Your task to perform on an android device: toggle improve location accuracy Image 0: 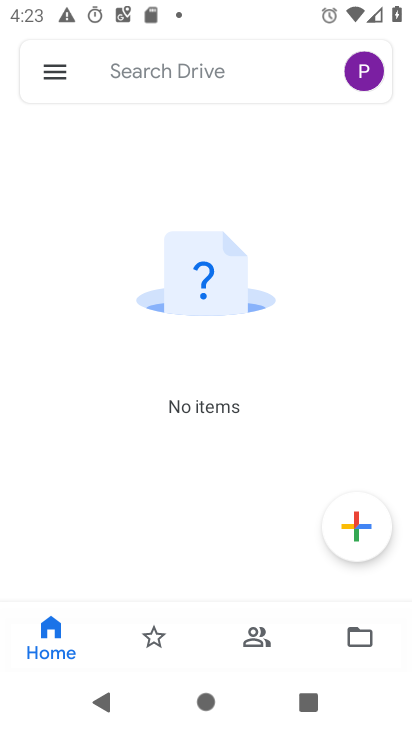
Step 0: press home button
Your task to perform on an android device: toggle improve location accuracy Image 1: 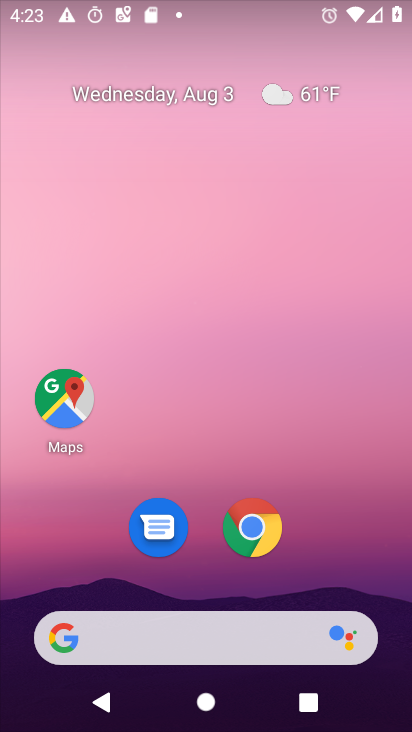
Step 1: drag from (338, 535) to (369, 31)
Your task to perform on an android device: toggle improve location accuracy Image 2: 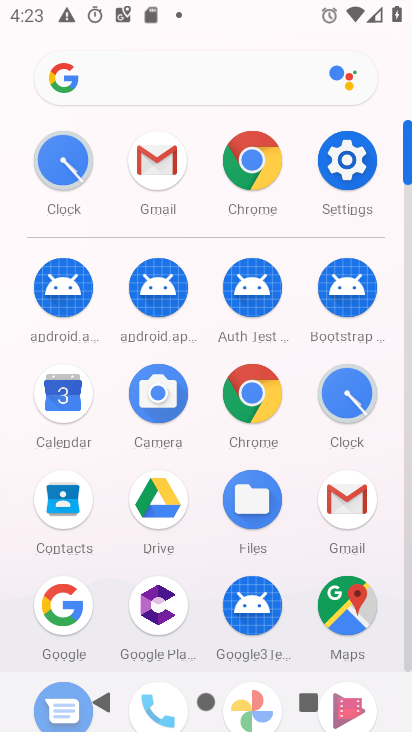
Step 2: click (354, 146)
Your task to perform on an android device: toggle improve location accuracy Image 3: 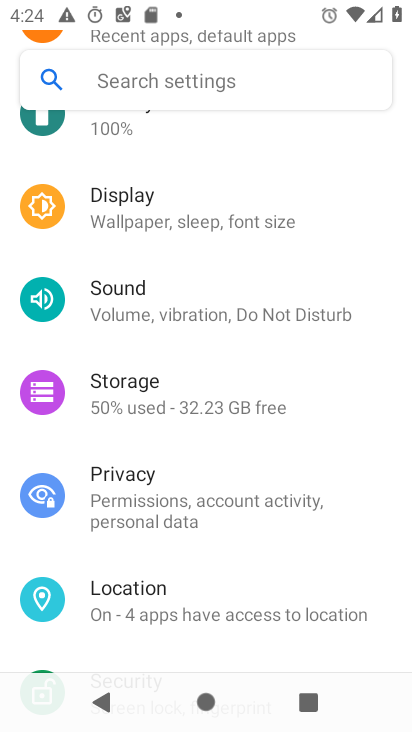
Step 3: drag from (328, 180) to (350, 112)
Your task to perform on an android device: toggle improve location accuracy Image 4: 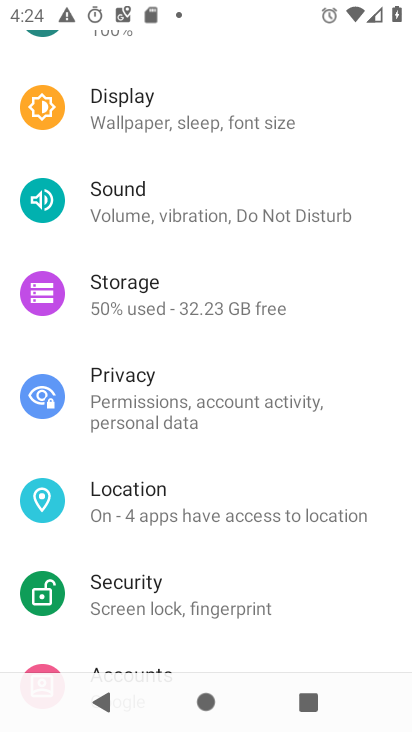
Step 4: drag from (262, 585) to (297, 95)
Your task to perform on an android device: toggle improve location accuracy Image 5: 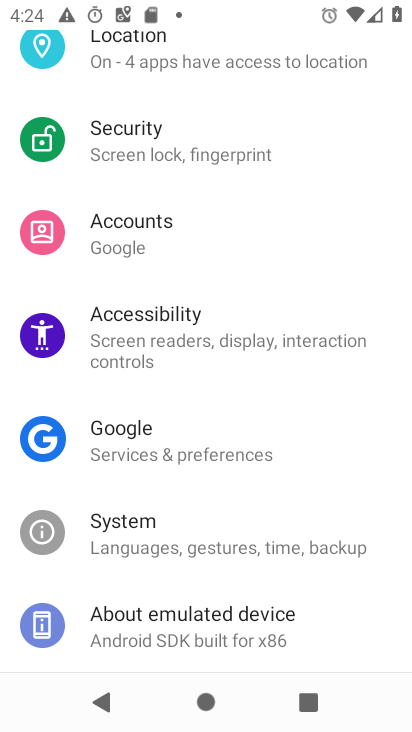
Step 5: click (205, 68)
Your task to perform on an android device: toggle improve location accuracy Image 6: 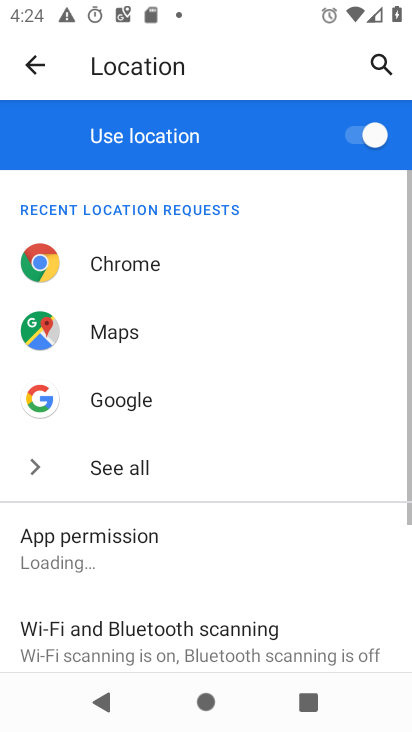
Step 6: drag from (238, 596) to (305, 114)
Your task to perform on an android device: toggle improve location accuracy Image 7: 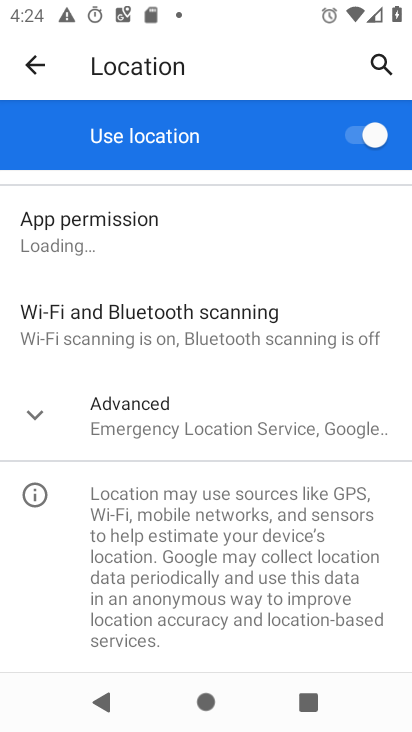
Step 7: click (191, 440)
Your task to perform on an android device: toggle improve location accuracy Image 8: 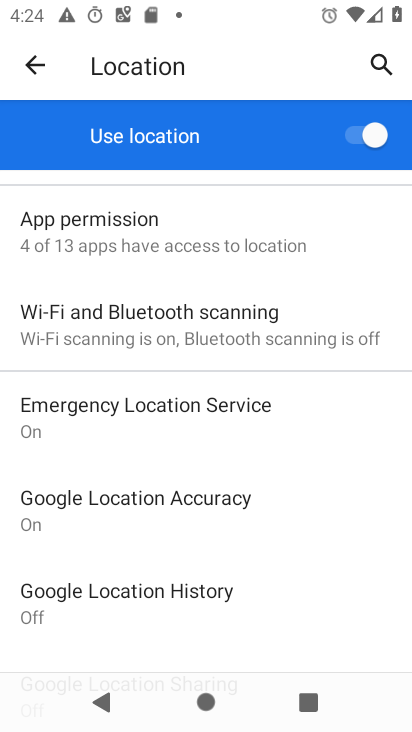
Step 8: click (181, 503)
Your task to perform on an android device: toggle improve location accuracy Image 9: 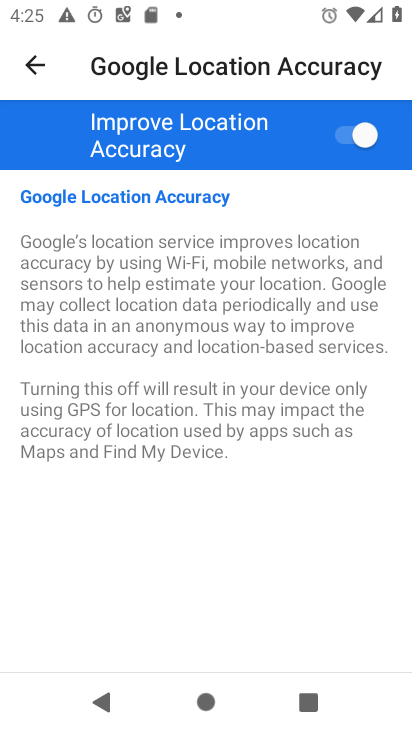
Step 9: click (365, 127)
Your task to perform on an android device: toggle improve location accuracy Image 10: 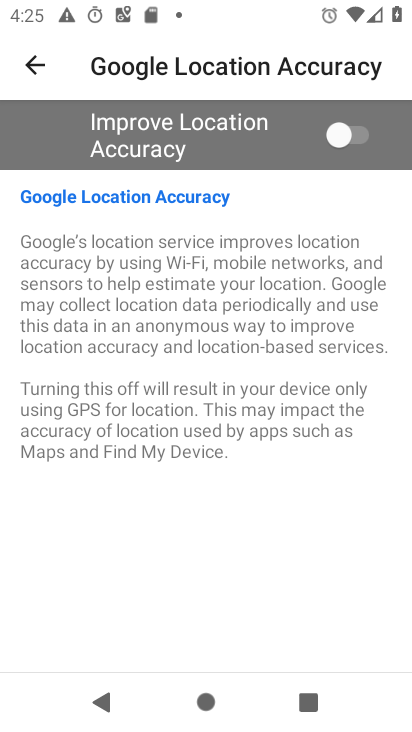
Step 10: task complete